Your task to perform on an android device: Open calendar and show me the first week of next month Image 0: 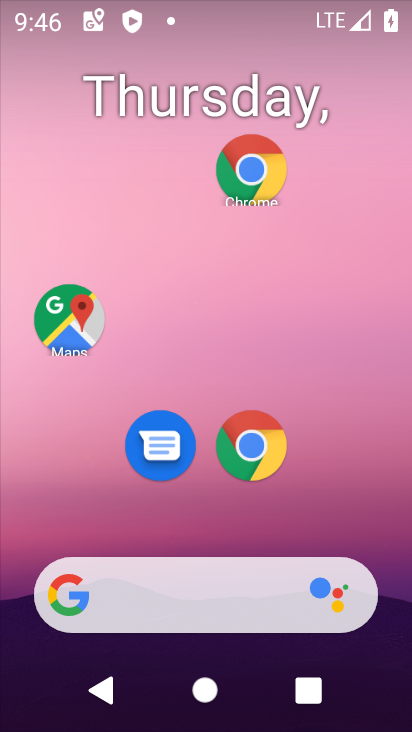
Step 0: drag from (226, 538) to (167, 54)
Your task to perform on an android device: Open calendar and show me the first week of next month Image 1: 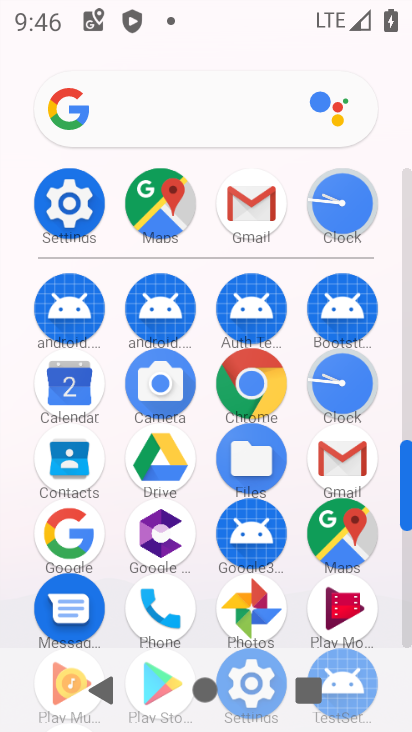
Step 1: click (73, 397)
Your task to perform on an android device: Open calendar and show me the first week of next month Image 2: 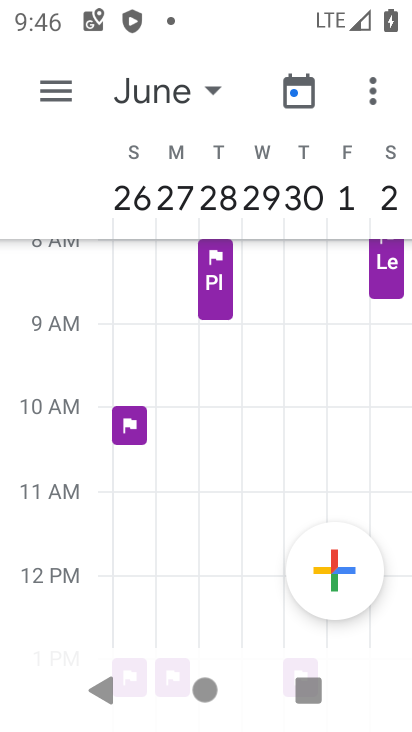
Step 2: task complete